Your task to perform on an android device: Show me the alarms in the clock app Image 0: 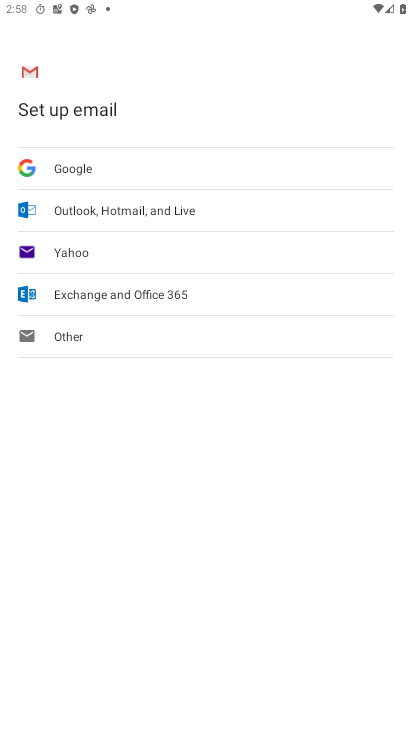
Step 0: press home button
Your task to perform on an android device: Show me the alarms in the clock app Image 1: 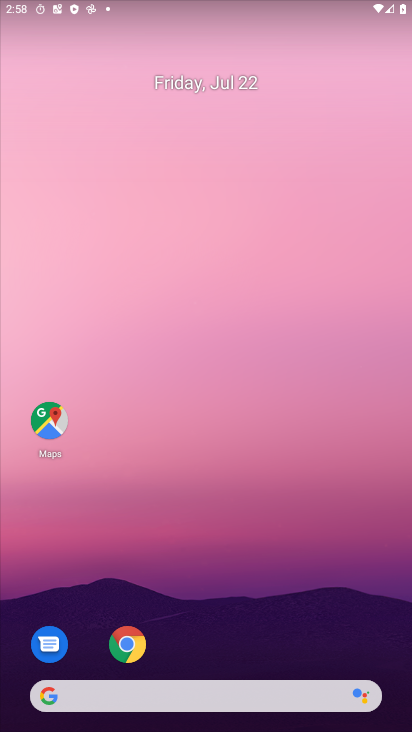
Step 1: drag from (217, 675) to (169, 107)
Your task to perform on an android device: Show me the alarms in the clock app Image 2: 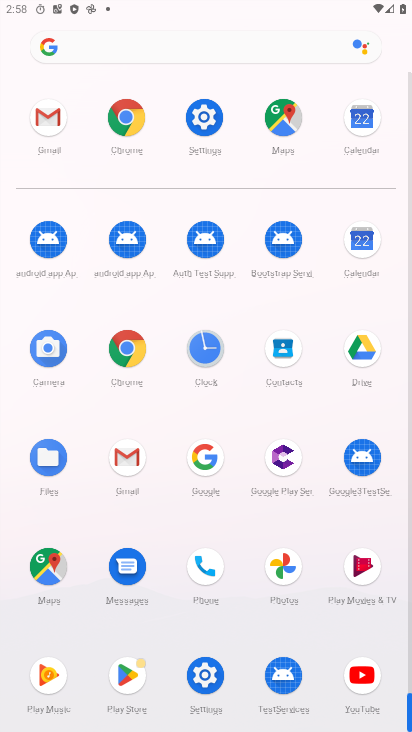
Step 2: click (212, 364)
Your task to perform on an android device: Show me the alarms in the clock app Image 3: 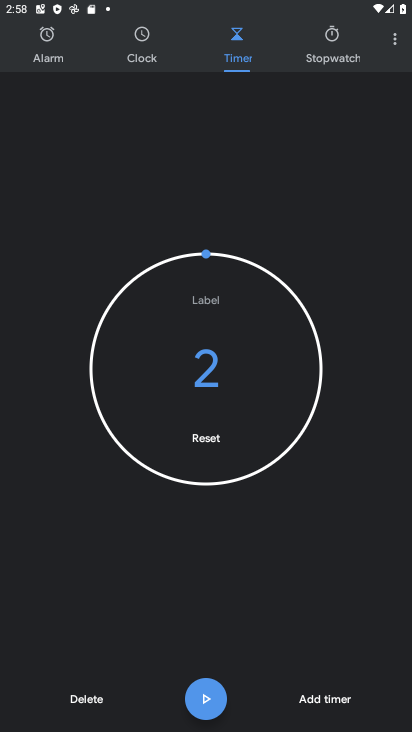
Step 3: click (53, 52)
Your task to perform on an android device: Show me the alarms in the clock app Image 4: 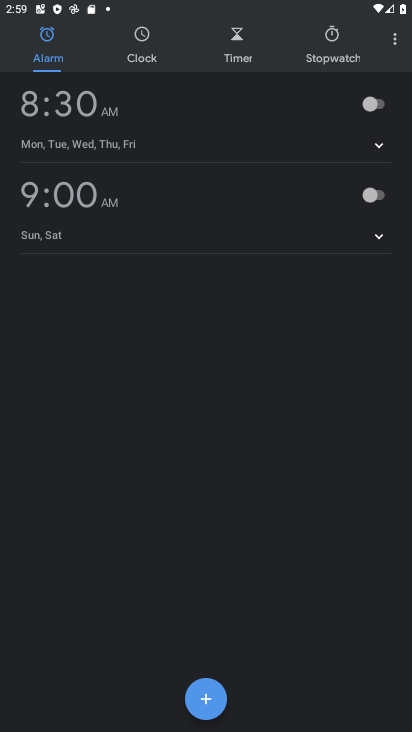
Step 4: task complete